Your task to perform on an android device: read, delete, or share a saved page in the chrome app Image 0: 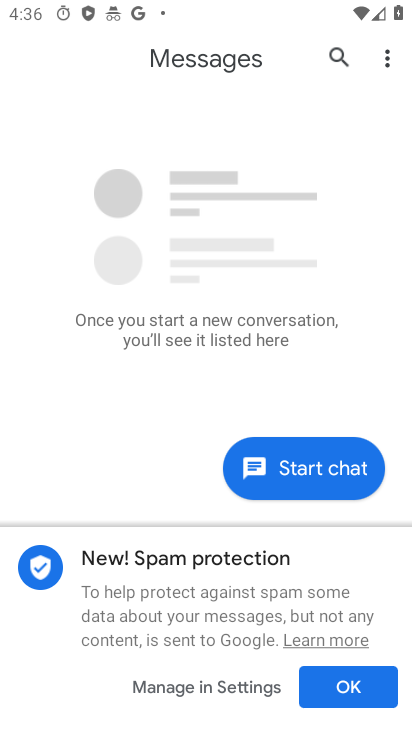
Step 0: click (336, 538)
Your task to perform on an android device: read, delete, or share a saved page in the chrome app Image 1: 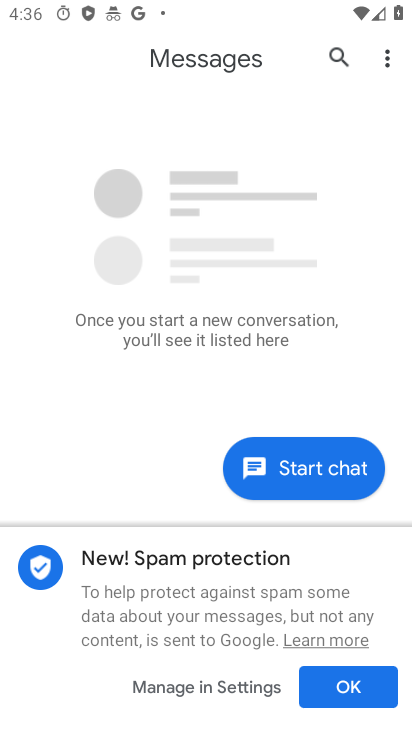
Step 1: press home button
Your task to perform on an android device: read, delete, or share a saved page in the chrome app Image 2: 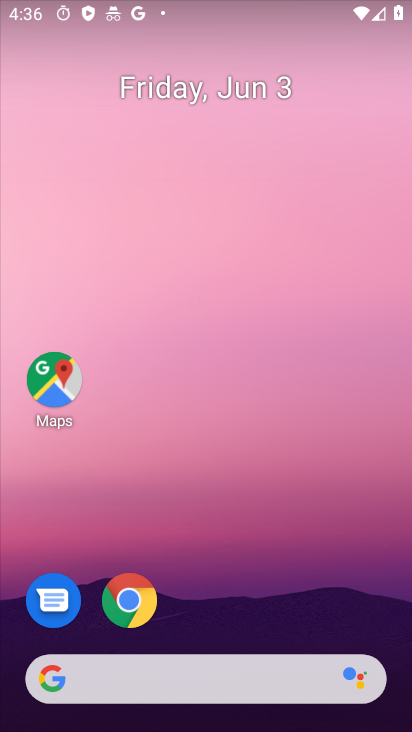
Step 2: click (122, 596)
Your task to perform on an android device: read, delete, or share a saved page in the chrome app Image 3: 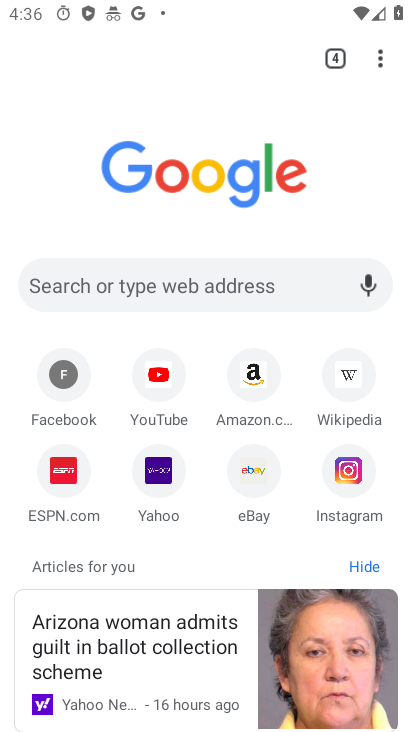
Step 3: click (380, 59)
Your task to perform on an android device: read, delete, or share a saved page in the chrome app Image 4: 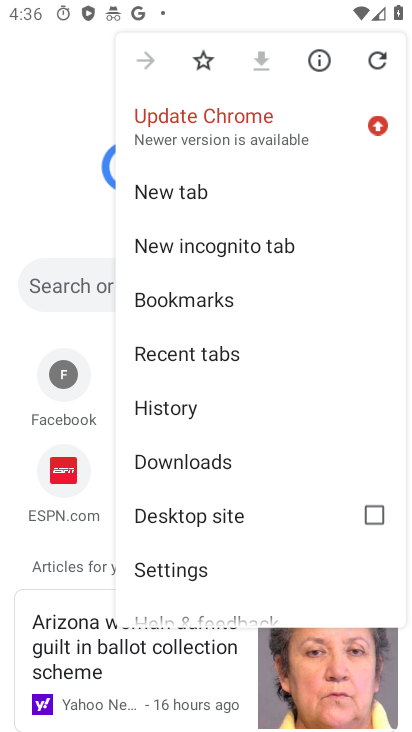
Step 4: click (178, 455)
Your task to perform on an android device: read, delete, or share a saved page in the chrome app Image 5: 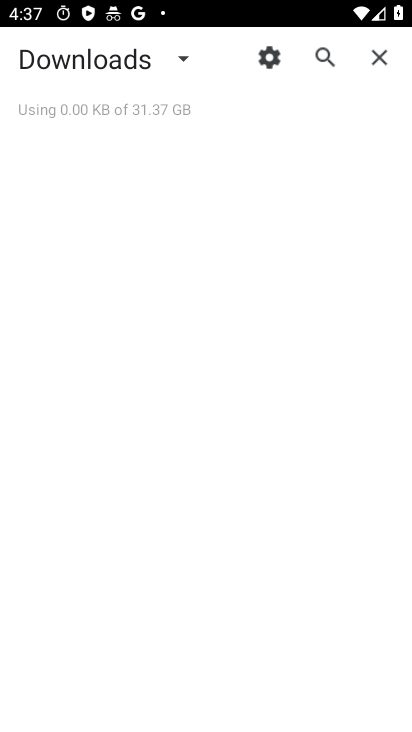
Step 5: task complete